Your task to perform on an android device: turn on bluetooth scan Image 0: 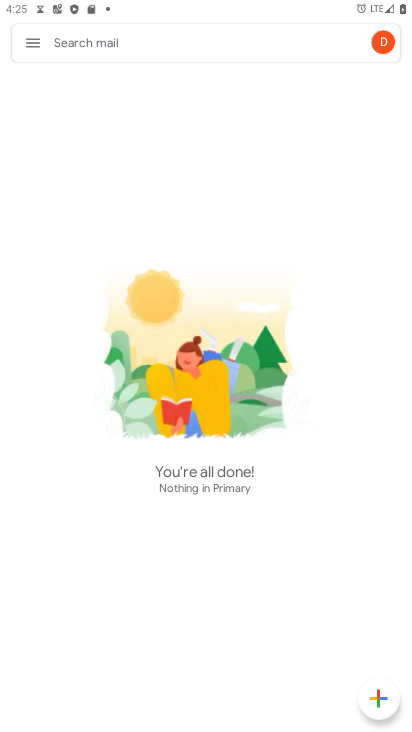
Step 0: press home button
Your task to perform on an android device: turn on bluetooth scan Image 1: 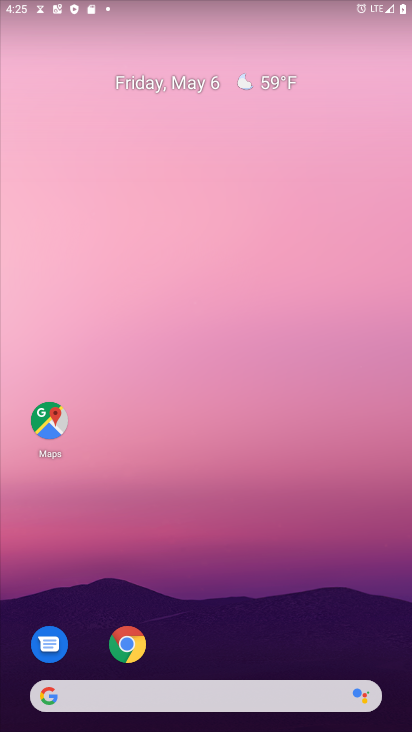
Step 1: drag from (183, 582) to (211, 59)
Your task to perform on an android device: turn on bluetooth scan Image 2: 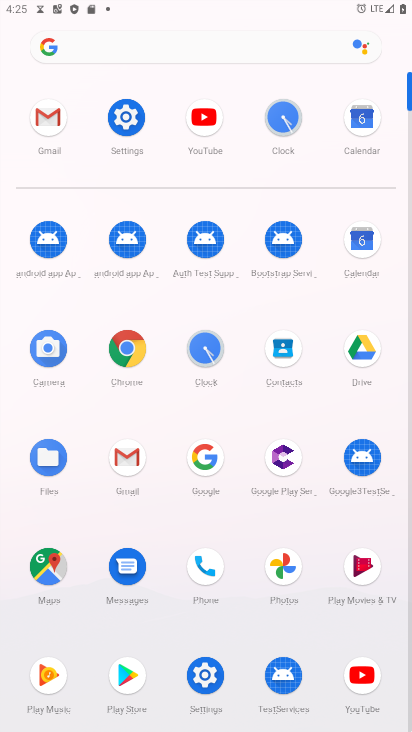
Step 2: click (206, 673)
Your task to perform on an android device: turn on bluetooth scan Image 3: 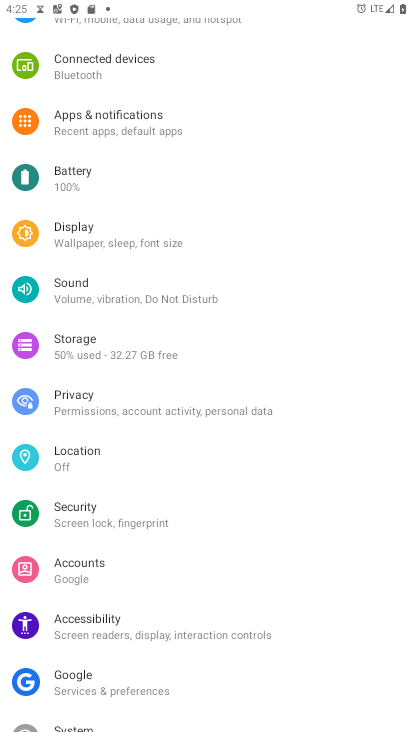
Step 3: drag from (189, 213) to (217, 328)
Your task to perform on an android device: turn on bluetooth scan Image 4: 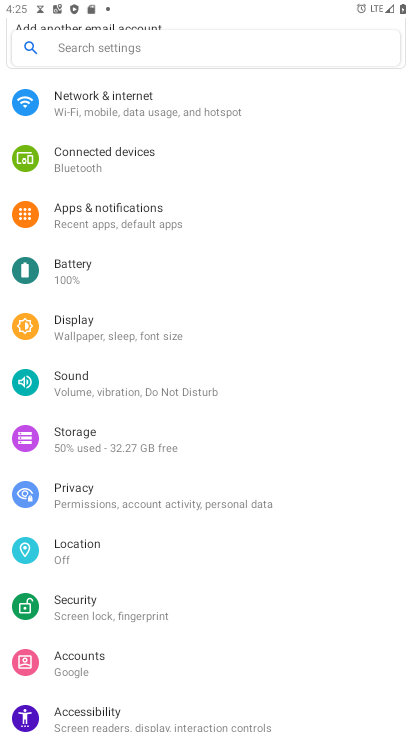
Step 4: drag from (190, 165) to (213, 291)
Your task to perform on an android device: turn on bluetooth scan Image 5: 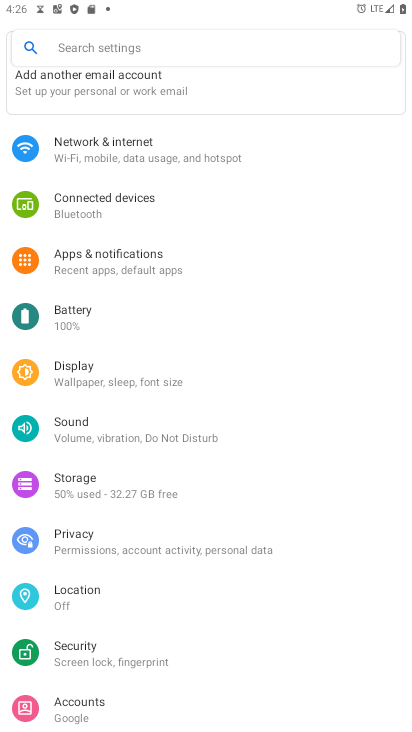
Step 5: drag from (218, 260) to (245, 360)
Your task to perform on an android device: turn on bluetooth scan Image 6: 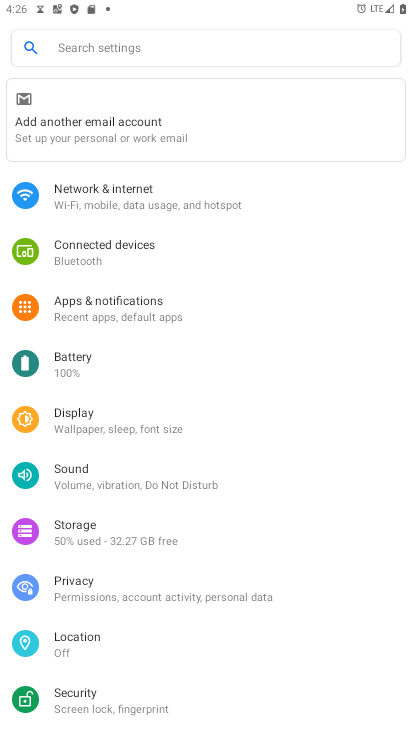
Step 6: click (76, 641)
Your task to perform on an android device: turn on bluetooth scan Image 7: 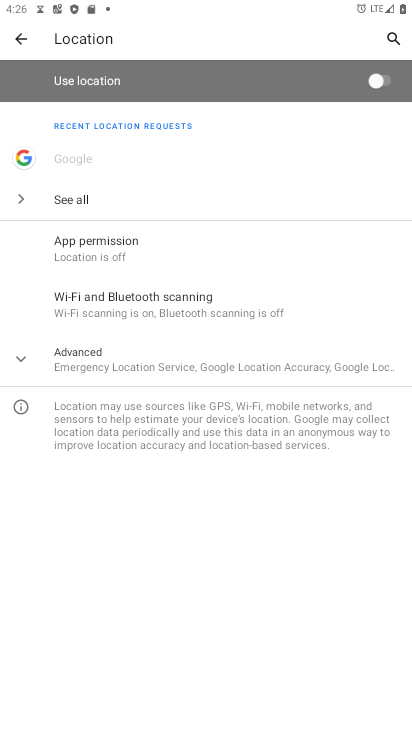
Step 7: click (144, 315)
Your task to perform on an android device: turn on bluetooth scan Image 8: 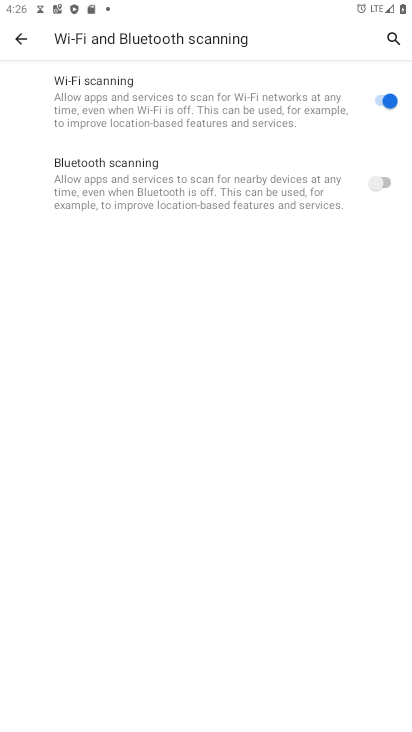
Step 8: click (379, 183)
Your task to perform on an android device: turn on bluetooth scan Image 9: 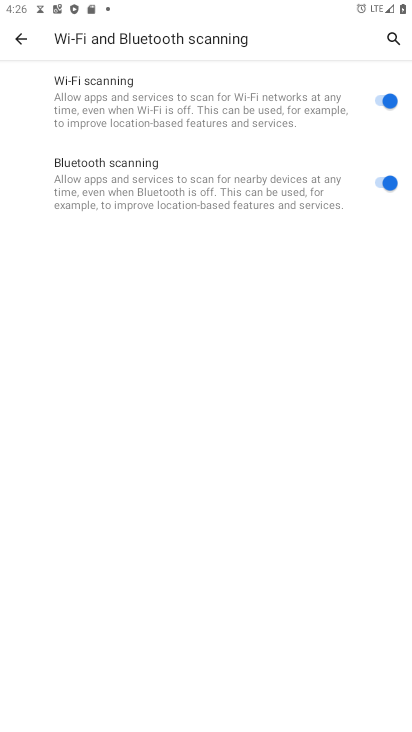
Step 9: task complete